Your task to perform on an android device: check battery use Image 0: 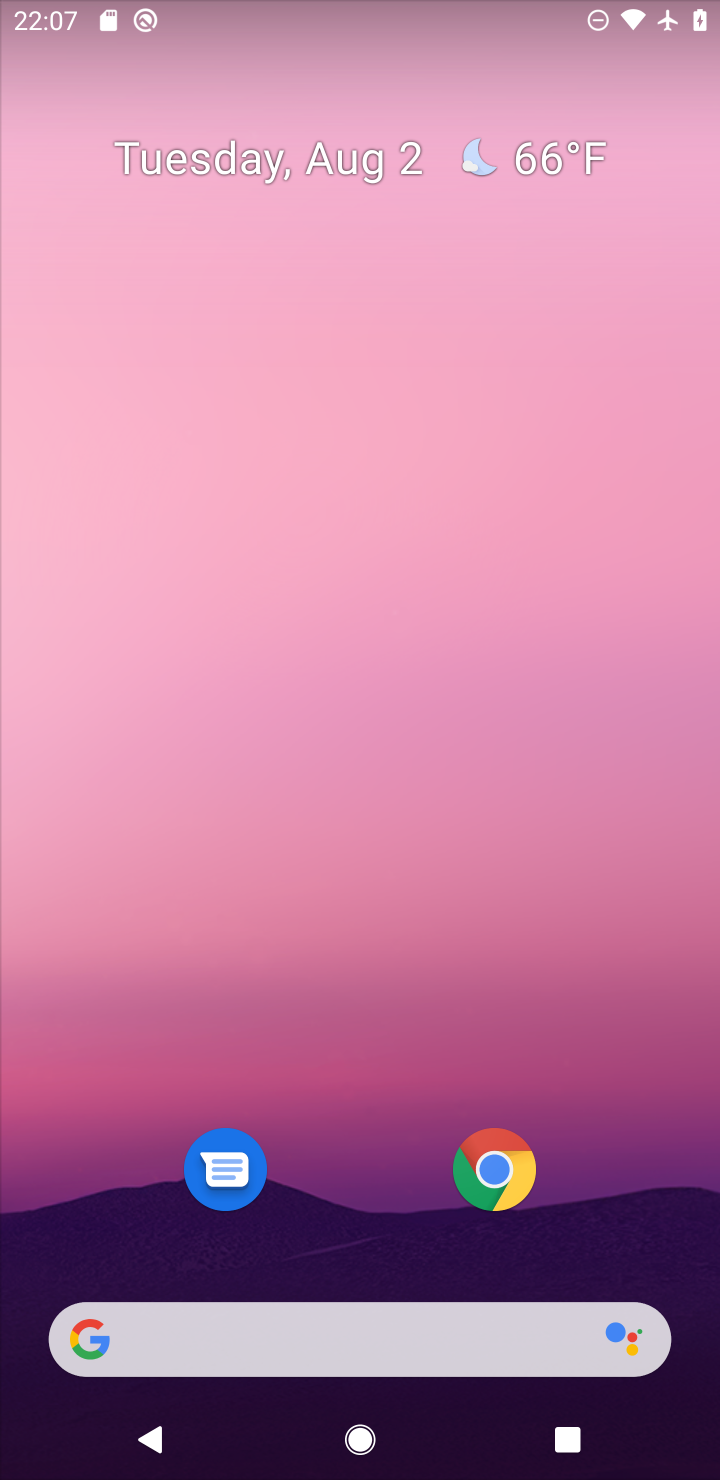
Step 0: drag from (356, 976) to (328, 32)
Your task to perform on an android device: check battery use Image 1: 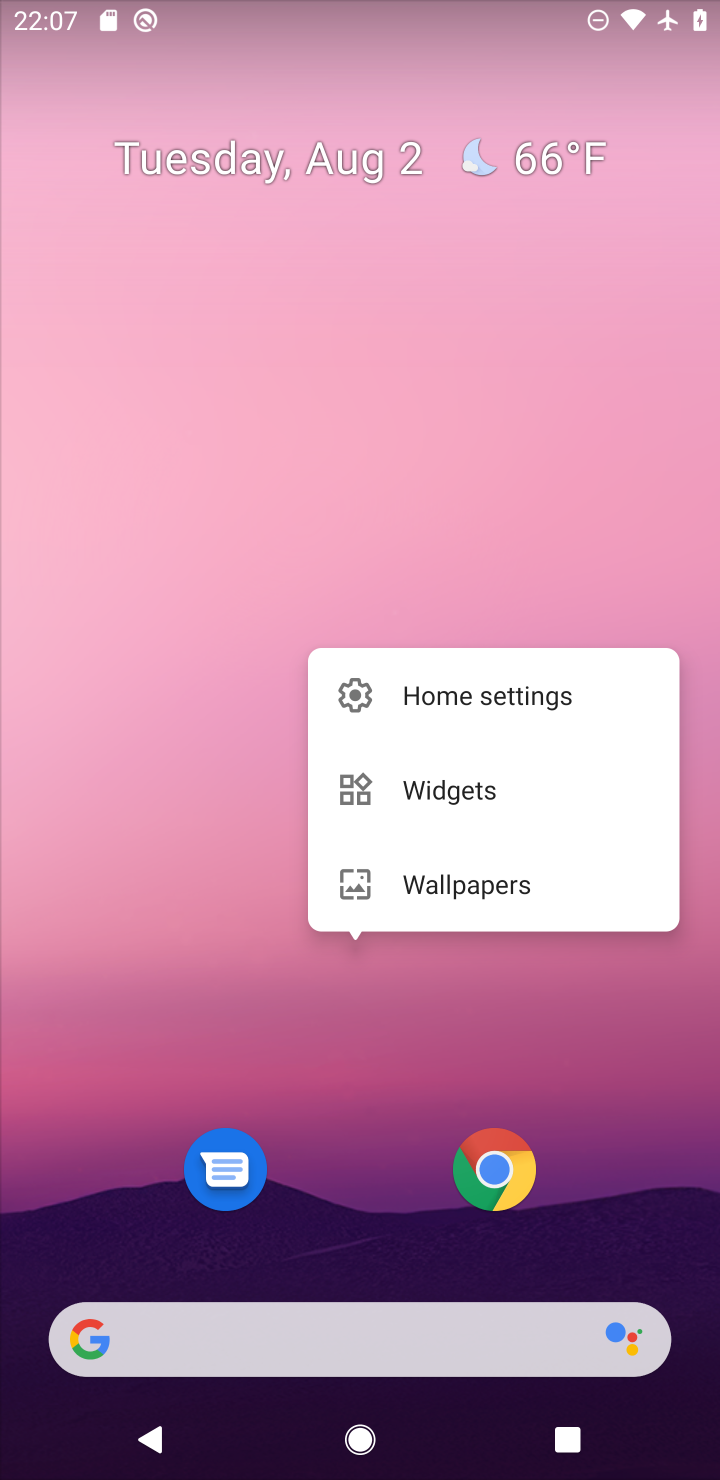
Step 1: click (423, 497)
Your task to perform on an android device: check battery use Image 2: 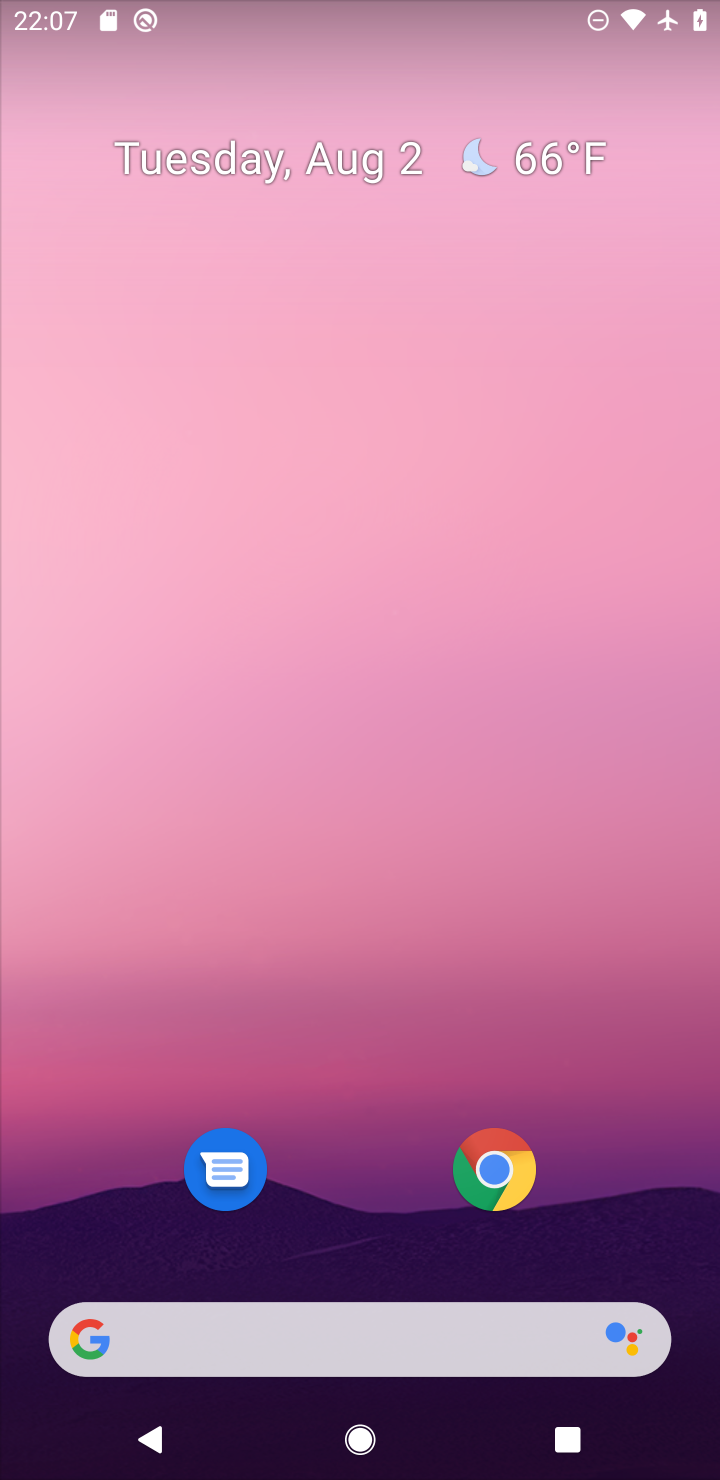
Step 2: drag from (352, 1227) to (346, 72)
Your task to perform on an android device: check battery use Image 3: 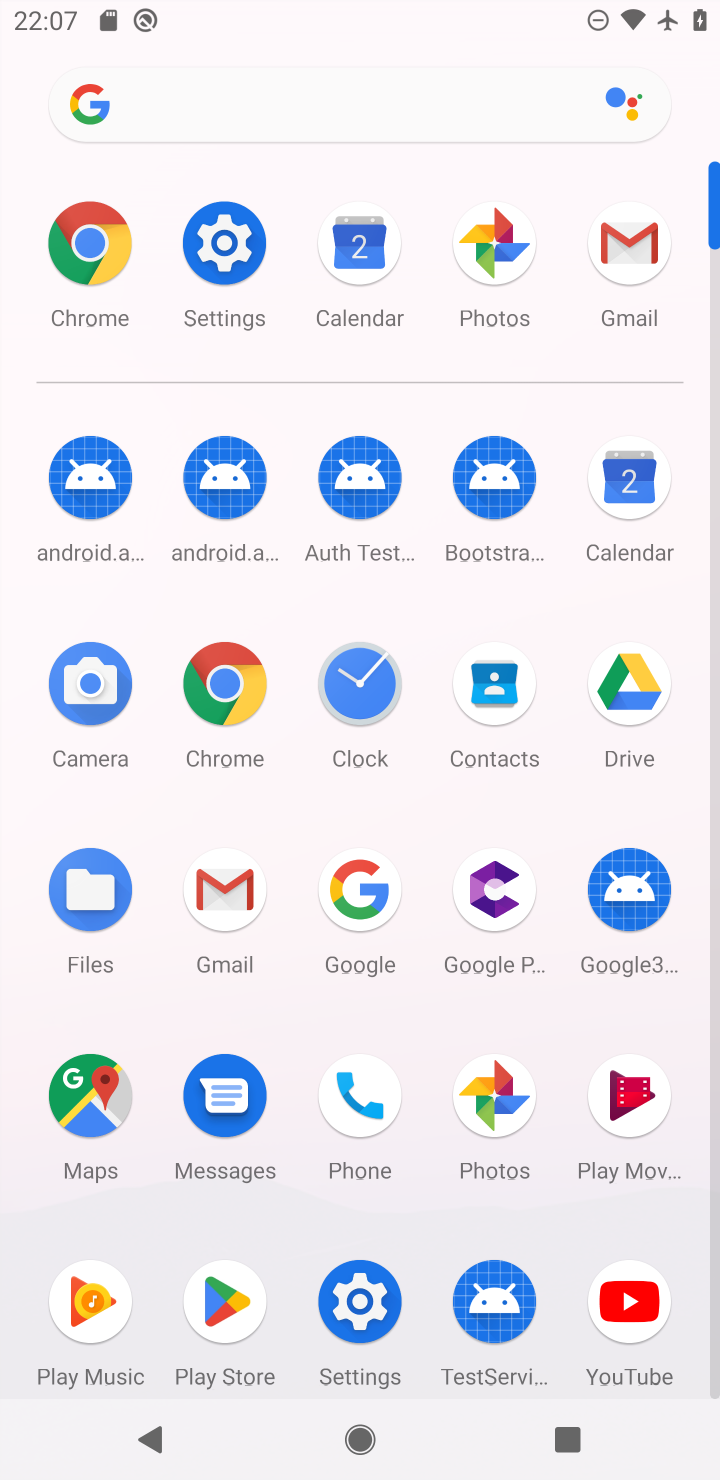
Step 3: click (226, 241)
Your task to perform on an android device: check battery use Image 4: 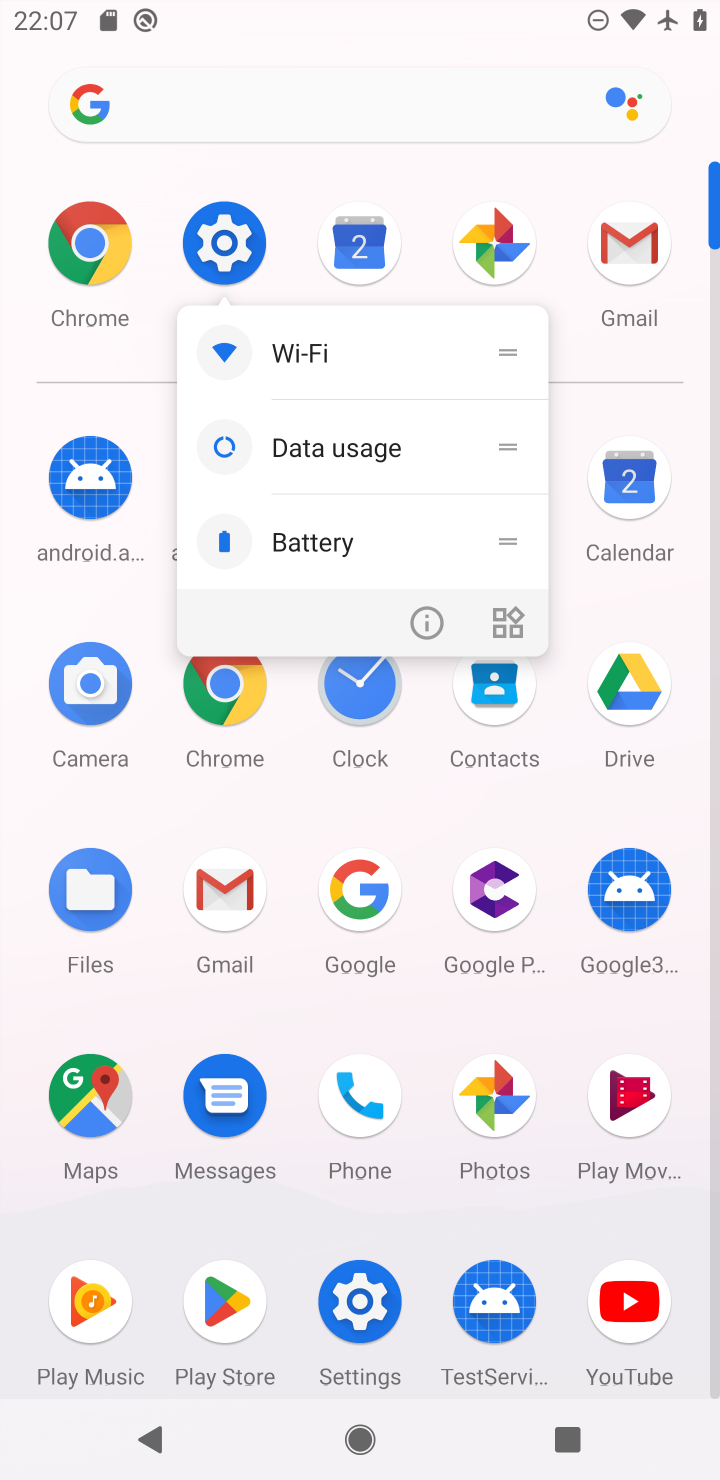
Step 4: click (221, 270)
Your task to perform on an android device: check battery use Image 5: 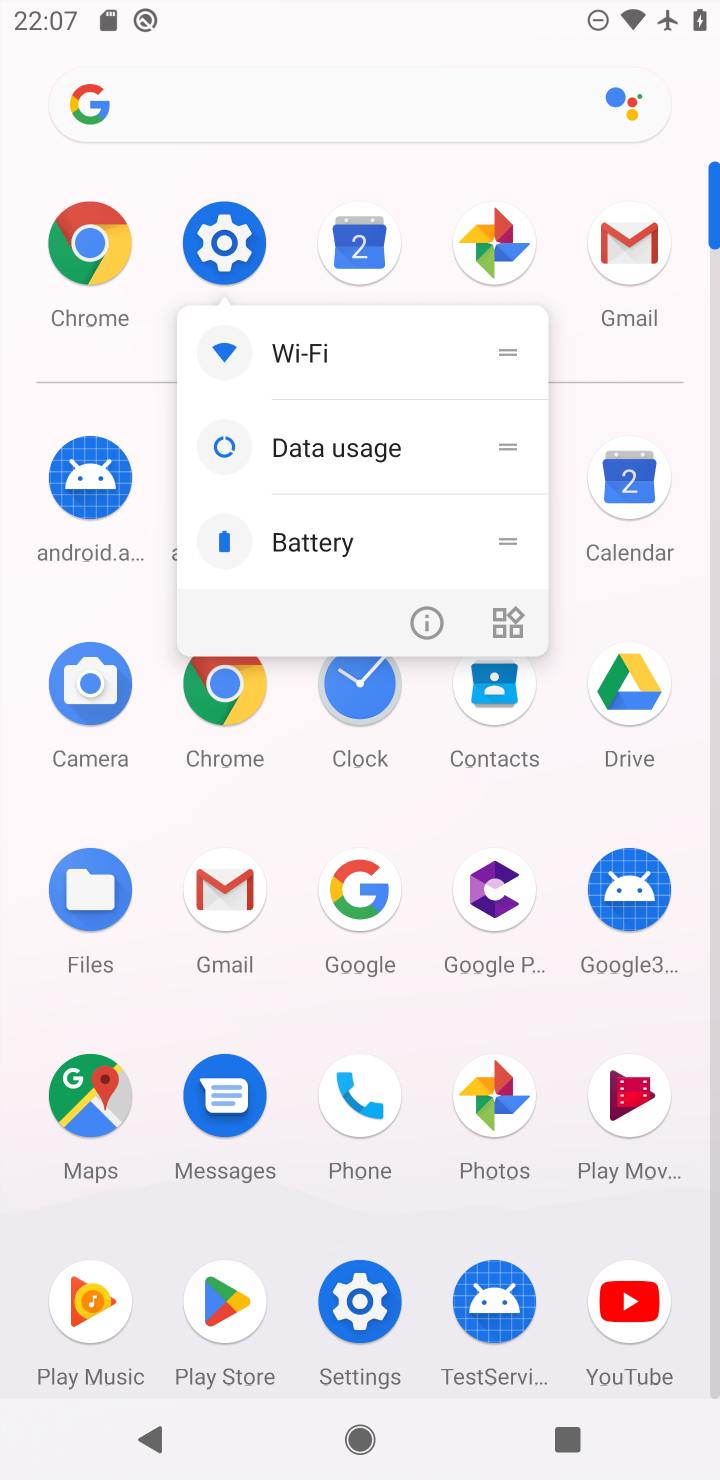
Step 5: click (221, 270)
Your task to perform on an android device: check battery use Image 6: 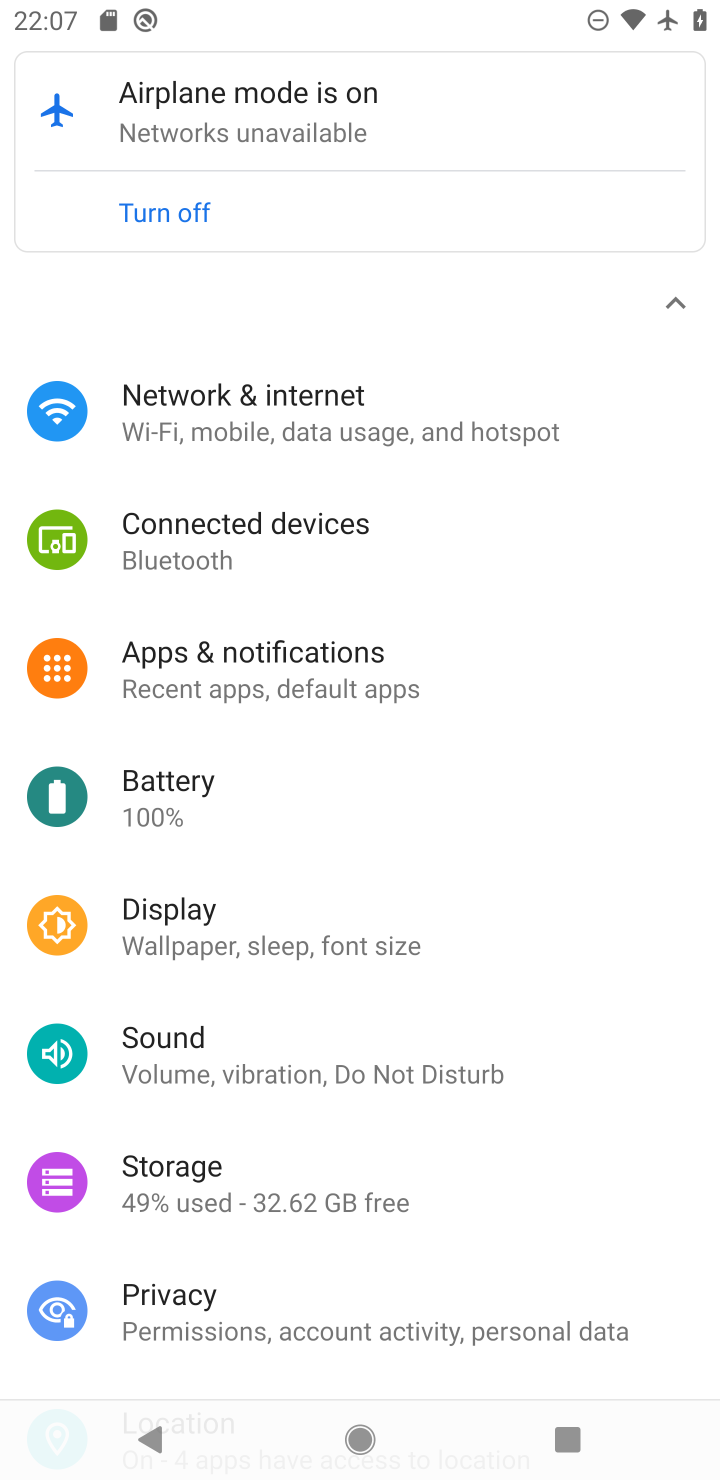
Step 6: click (138, 803)
Your task to perform on an android device: check battery use Image 7: 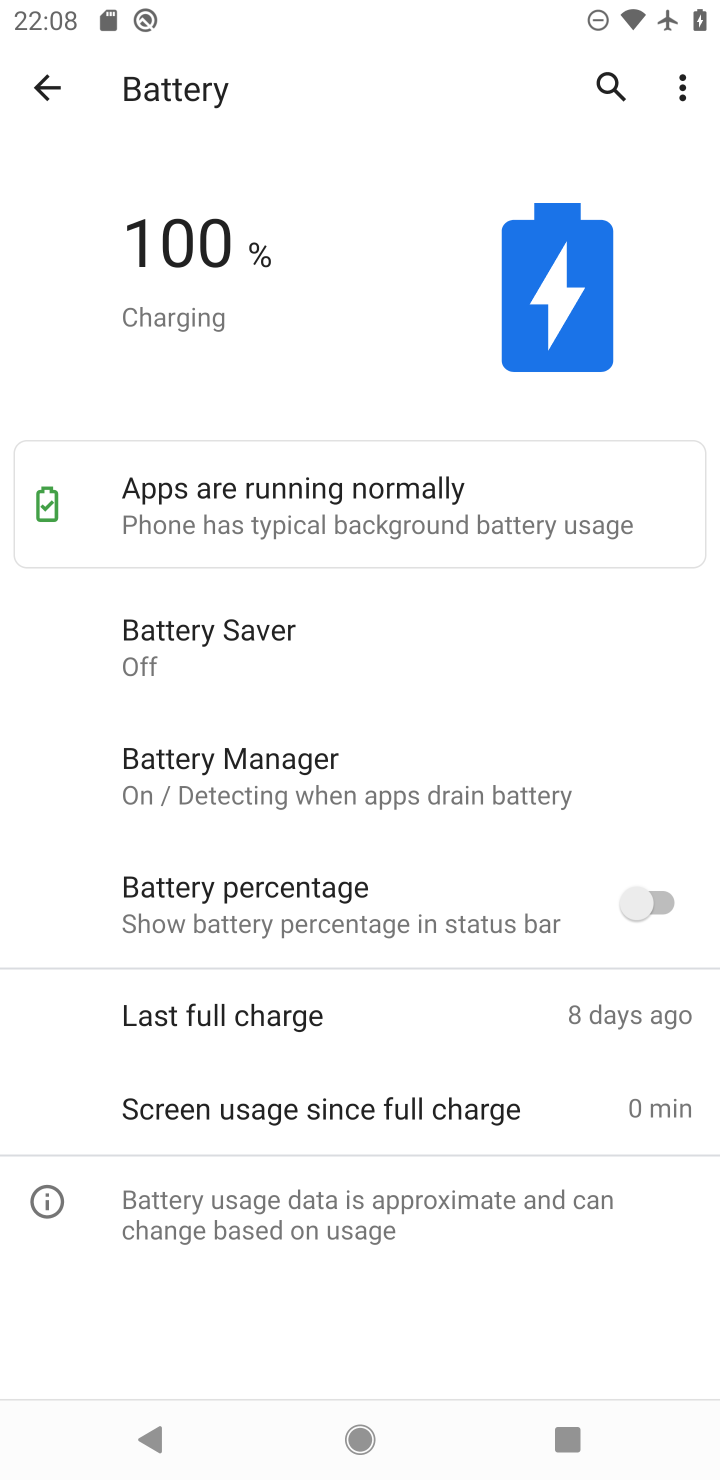
Step 7: click (678, 99)
Your task to perform on an android device: check battery use Image 8: 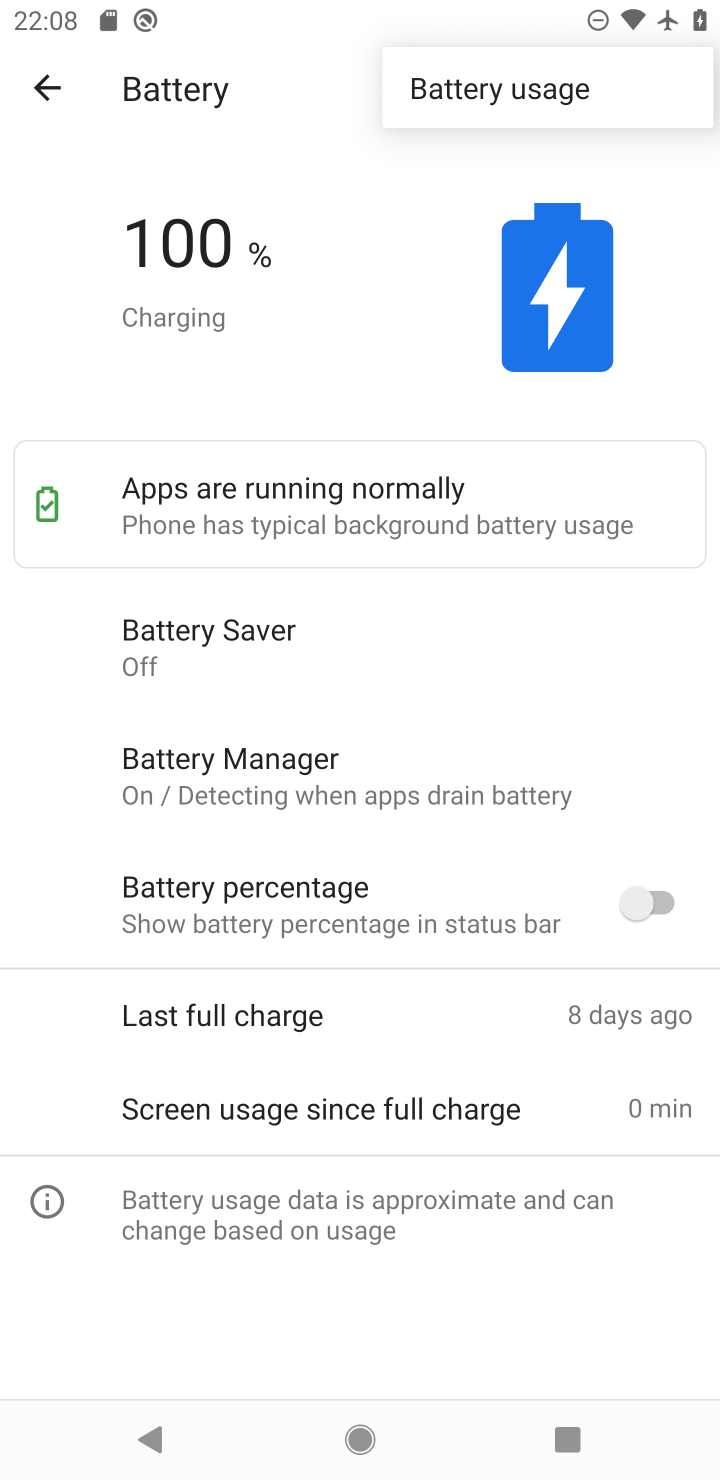
Step 8: click (495, 91)
Your task to perform on an android device: check battery use Image 9: 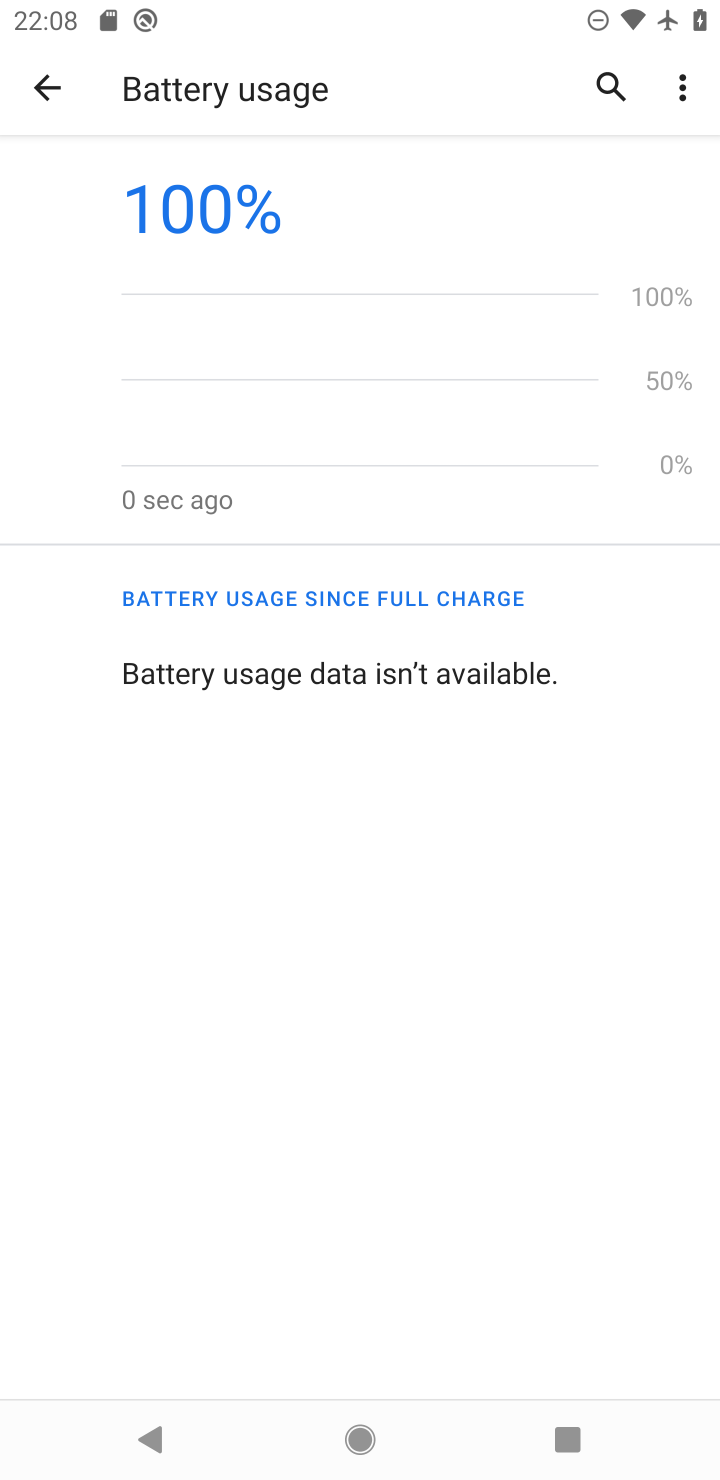
Step 9: click (683, 91)
Your task to perform on an android device: check battery use Image 10: 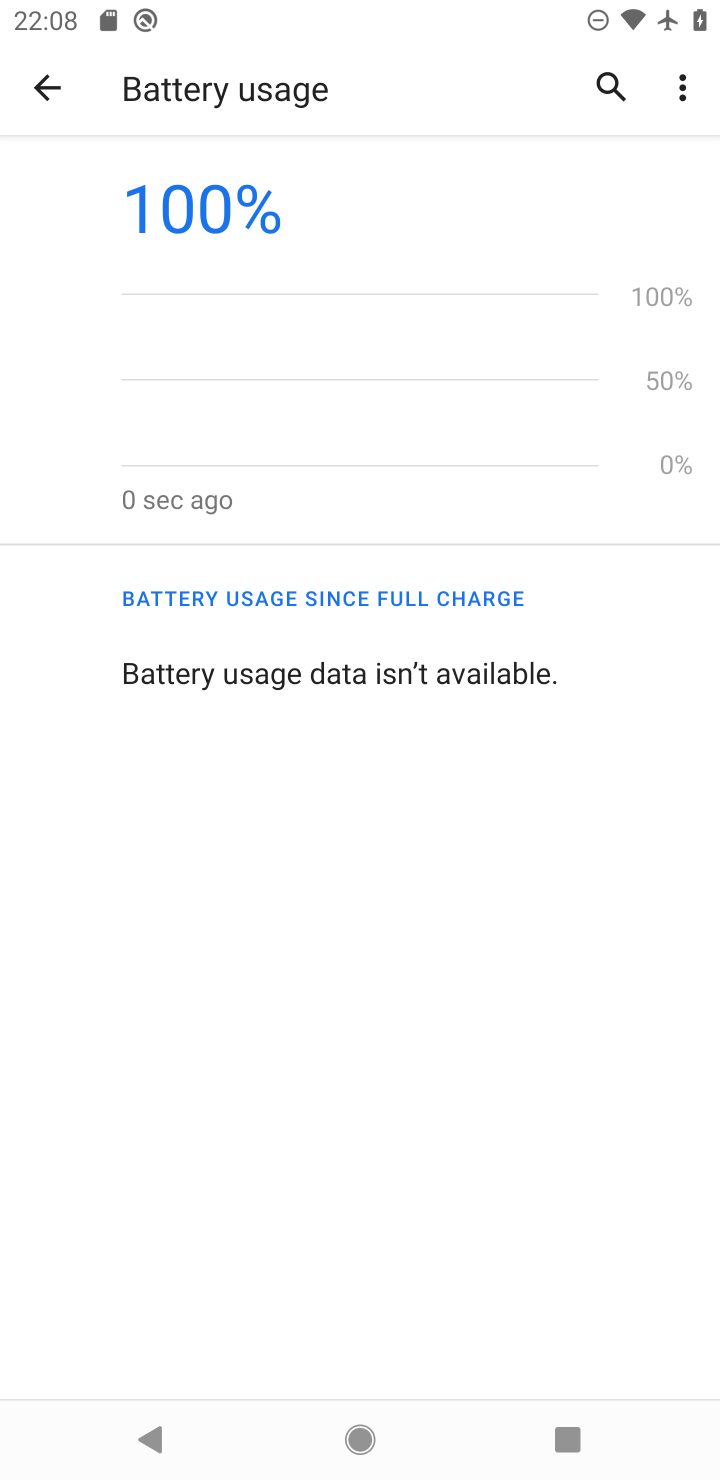
Step 10: task complete